Your task to perform on an android device: Open calendar and show me the second week of next month Image 0: 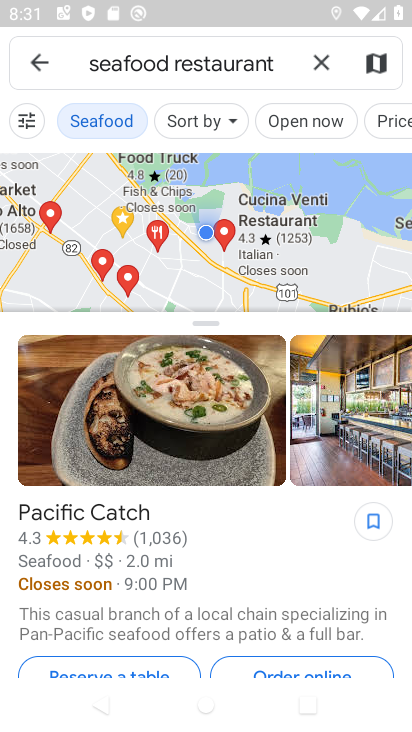
Step 0: press home button
Your task to perform on an android device: Open calendar and show me the second week of next month Image 1: 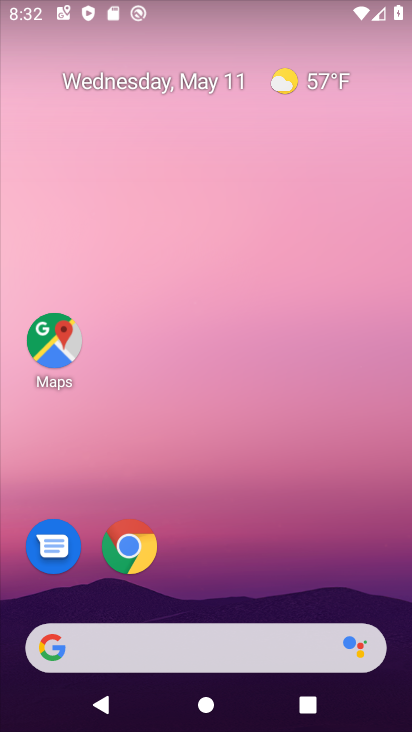
Step 1: drag from (217, 592) to (228, 199)
Your task to perform on an android device: Open calendar and show me the second week of next month Image 2: 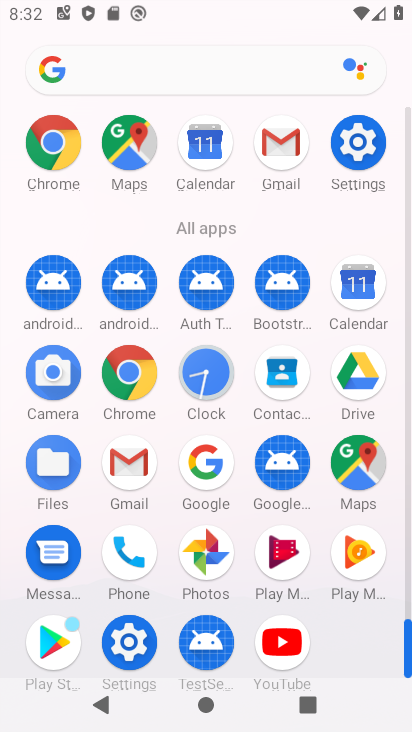
Step 2: click (335, 292)
Your task to perform on an android device: Open calendar and show me the second week of next month Image 3: 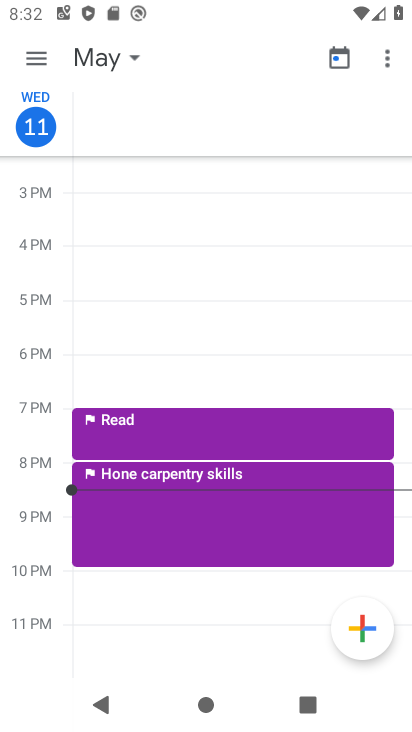
Step 3: click (112, 73)
Your task to perform on an android device: Open calendar and show me the second week of next month Image 4: 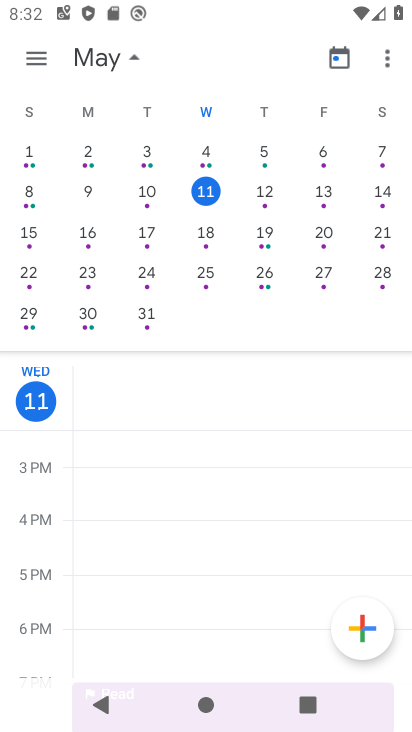
Step 4: drag from (342, 183) to (59, 176)
Your task to perform on an android device: Open calendar and show me the second week of next month Image 5: 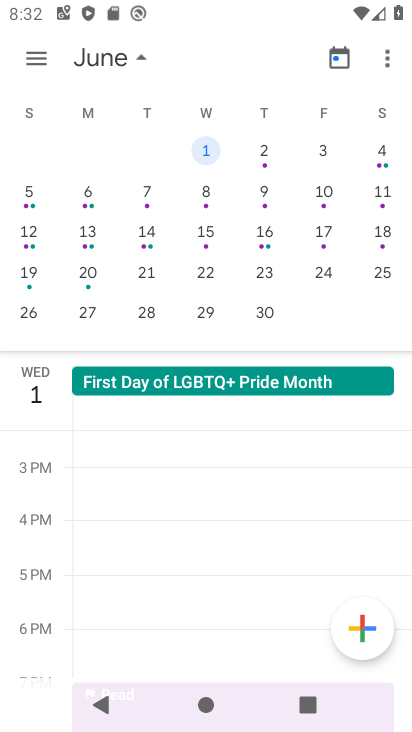
Step 5: click (92, 195)
Your task to perform on an android device: Open calendar and show me the second week of next month Image 6: 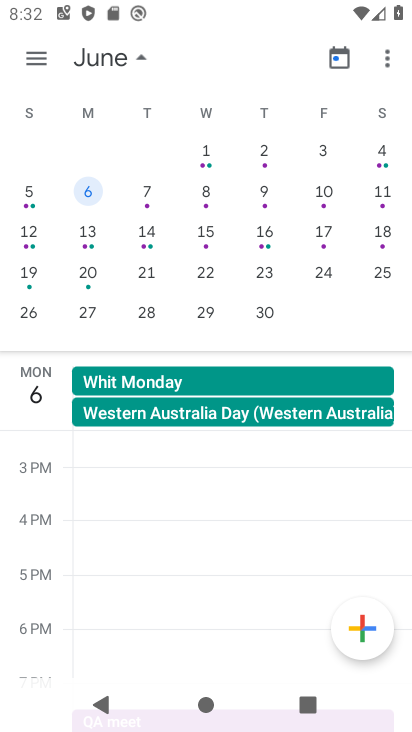
Step 6: task complete